Your task to perform on an android device: open app "Expedia: Hotels, Flights & Car" Image 0: 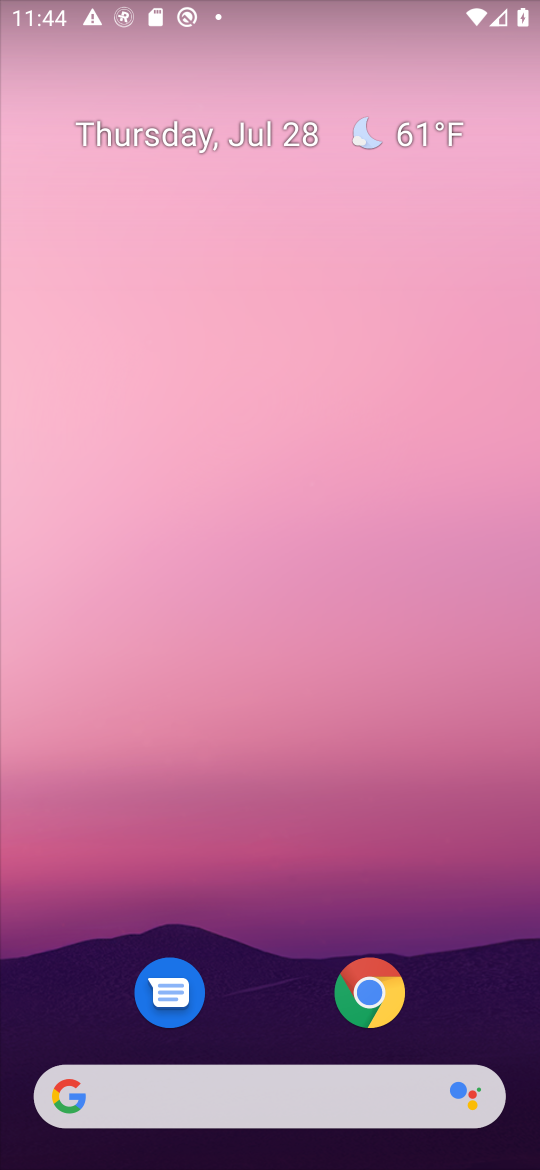
Step 0: drag from (241, 1099) to (281, 160)
Your task to perform on an android device: open app "Expedia: Hotels, Flights & Car" Image 1: 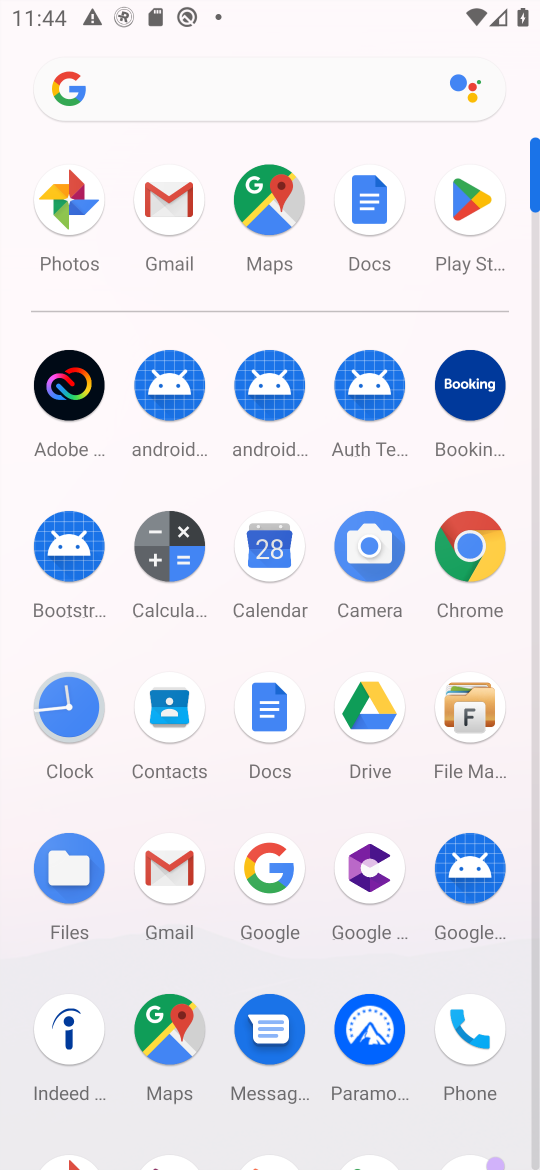
Step 1: click (471, 204)
Your task to perform on an android device: open app "Expedia: Hotels, Flights & Car" Image 2: 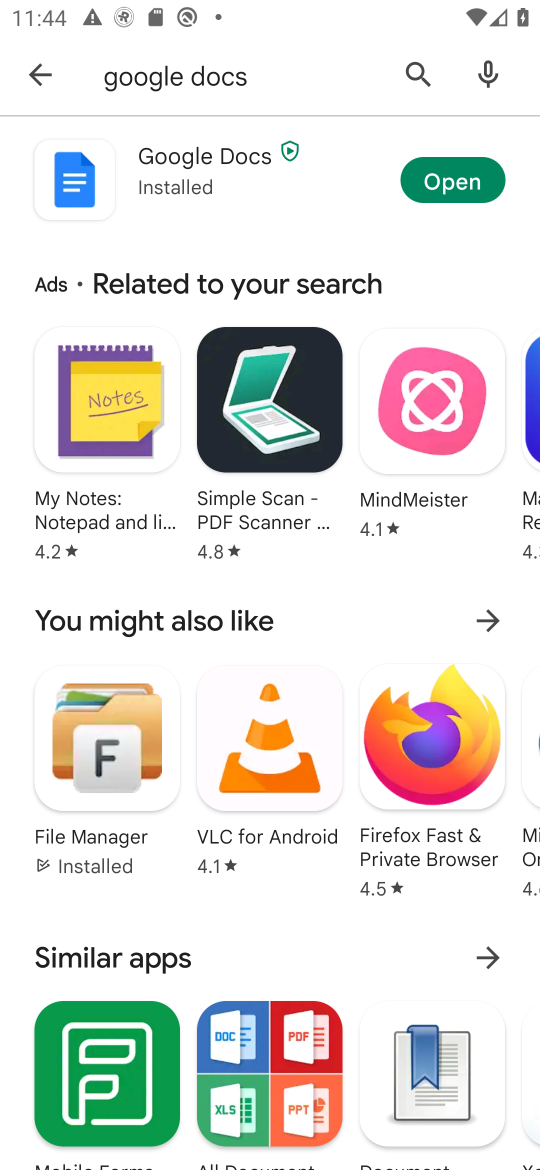
Step 2: click (415, 73)
Your task to perform on an android device: open app "Expedia: Hotels, Flights & Car" Image 3: 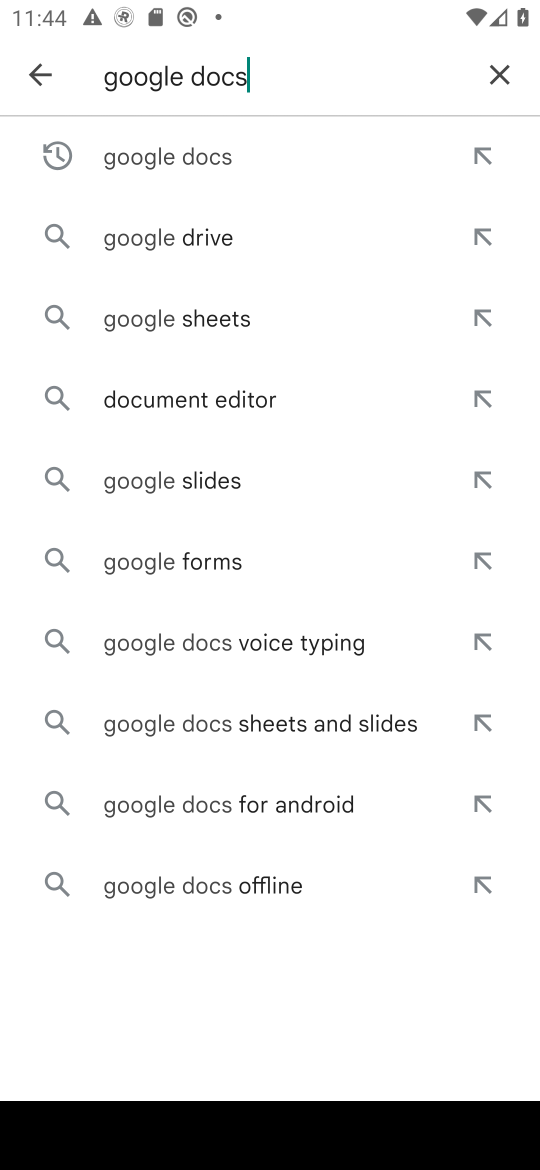
Step 3: click (494, 84)
Your task to perform on an android device: open app "Expedia: Hotels, Flights & Car" Image 4: 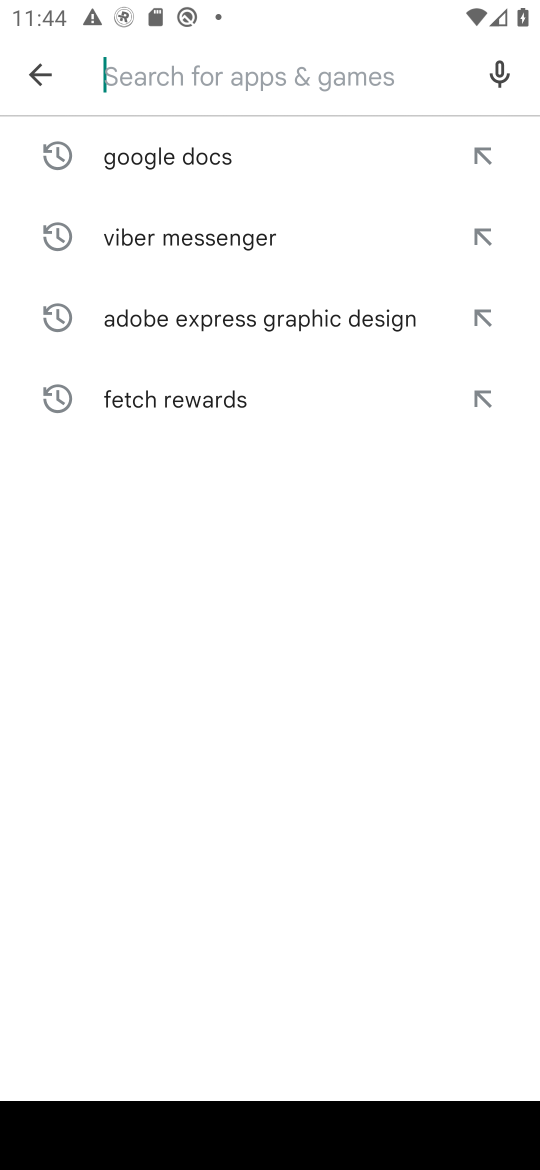
Step 4: click (213, 85)
Your task to perform on an android device: open app "Expedia: Hotels, Flights & Car" Image 5: 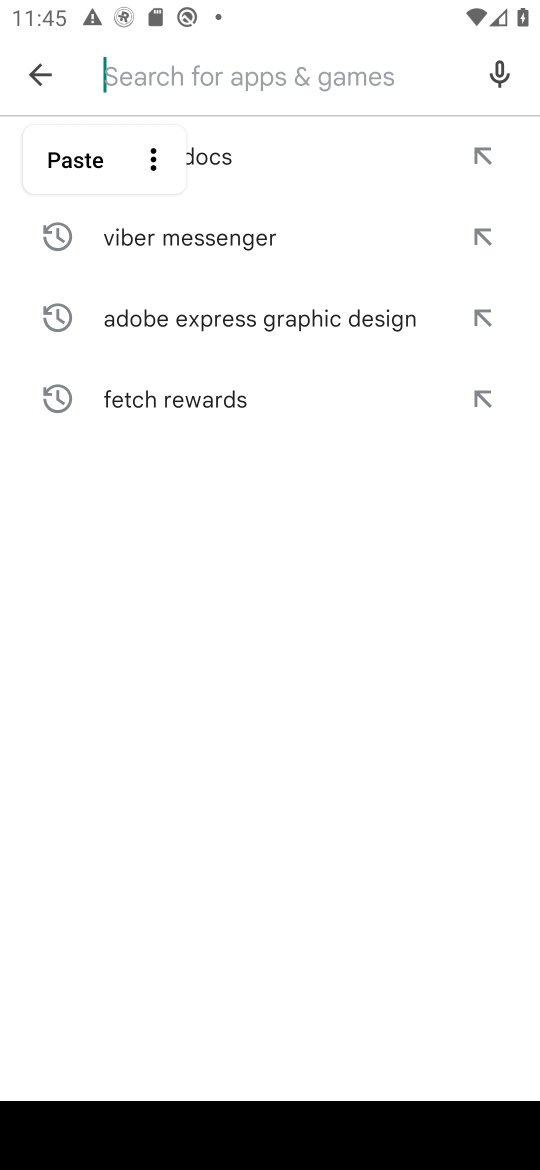
Step 5: type "Expedia: Hotels, Flights & Car"
Your task to perform on an android device: open app "Expedia: Hotels, Flights & Car" Image 6: 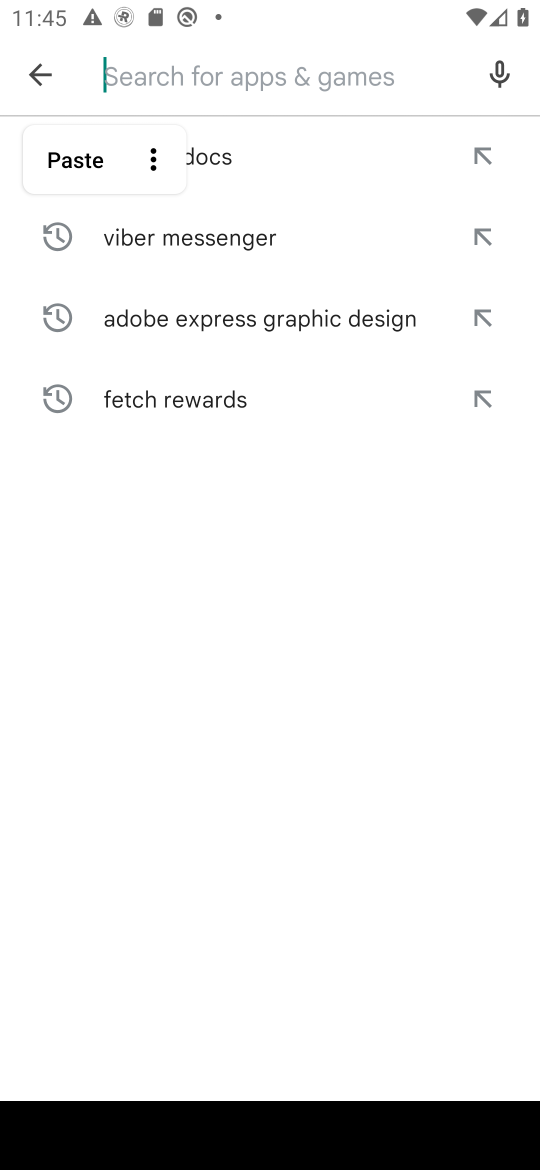
Step 6: click (283, 71)
Your task to perform on an android device: open app "Expedia: Hotels, Flights & Car" Image 7: 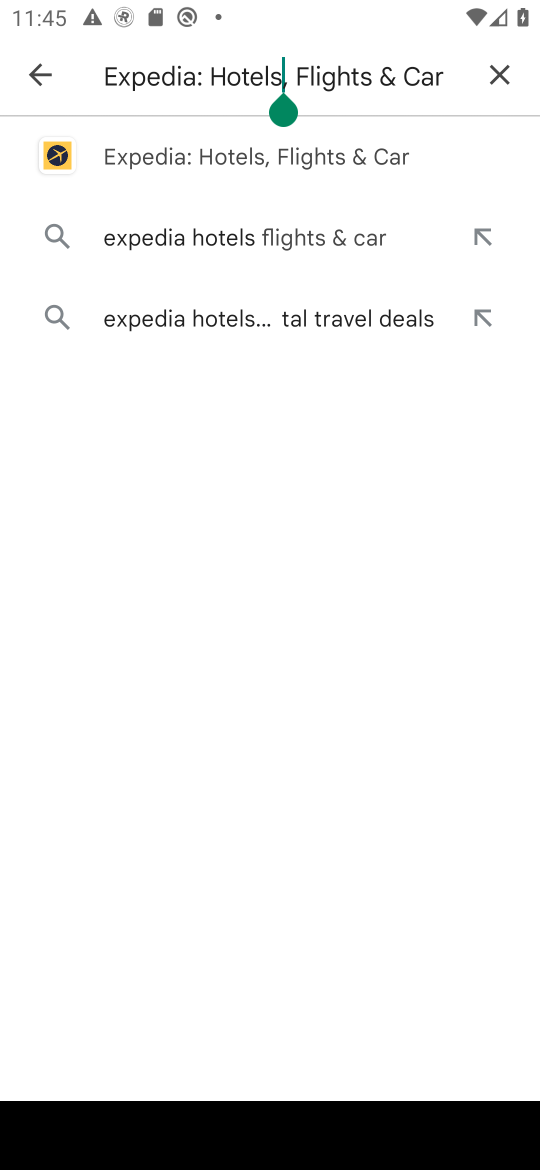
Step 7: click (229, 174)
Your task to perform on an android device: open app "Expedia: Hotels, Flights & Car" Image 8: 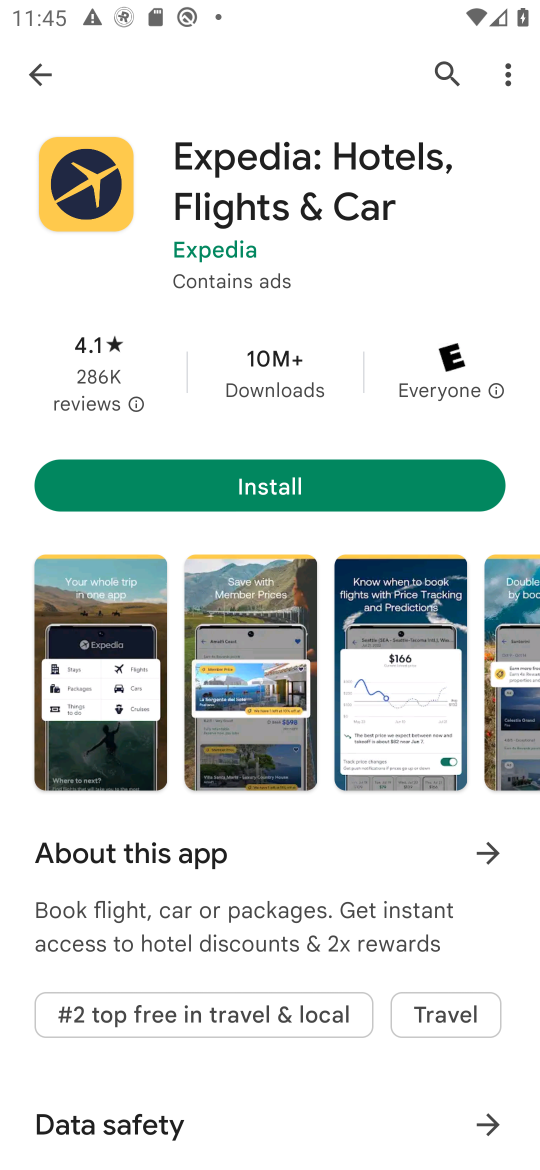
Step 8: task complete